Your task to perform on an android device: turn off location Image 0: 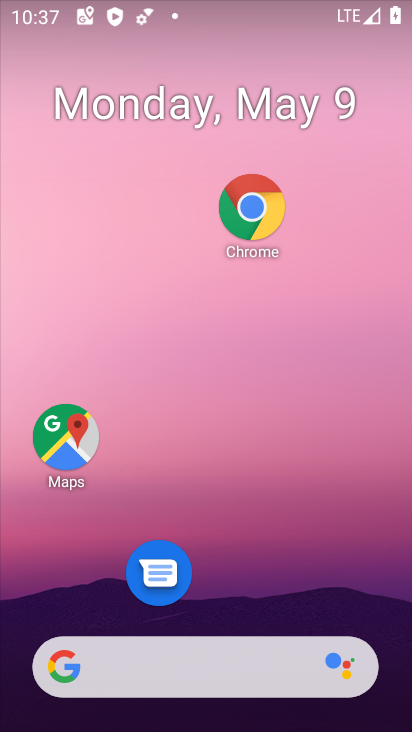
Step 0: drag from (251, 649) to (271, 42)
Your task to perform on an android device: turn off location Image 1: 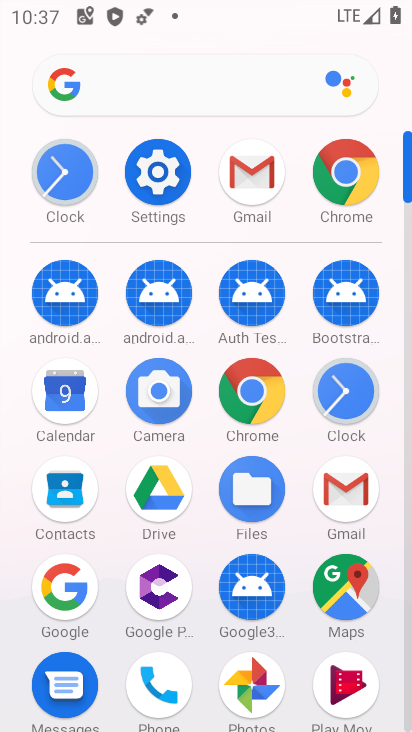
Step 1: click (176, 205)
Your task to perform on an android device: turn off location Image 2: 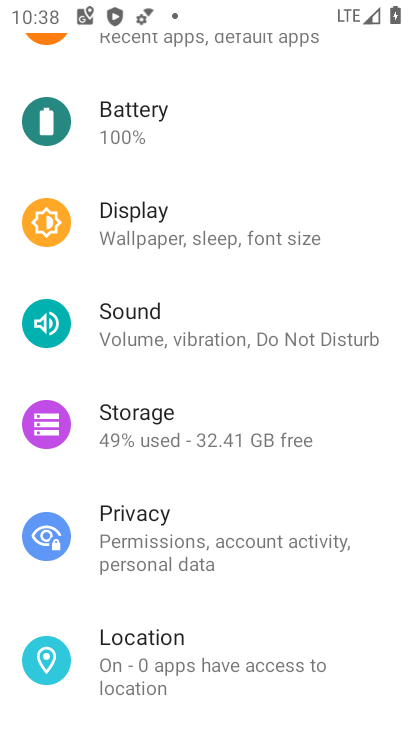
Step 2: click (243, 656)
Your task to perform on an android device: turn off location Image 3: 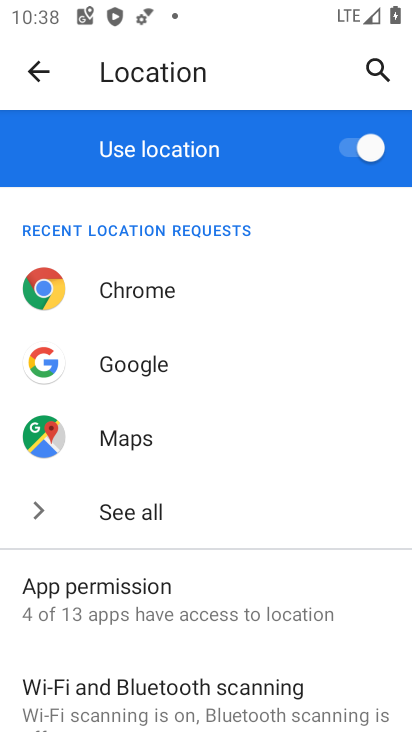
Step 3: drag from (248, 655) to (251, 278)
Your task to perform on an android device: turn off location Image 4: 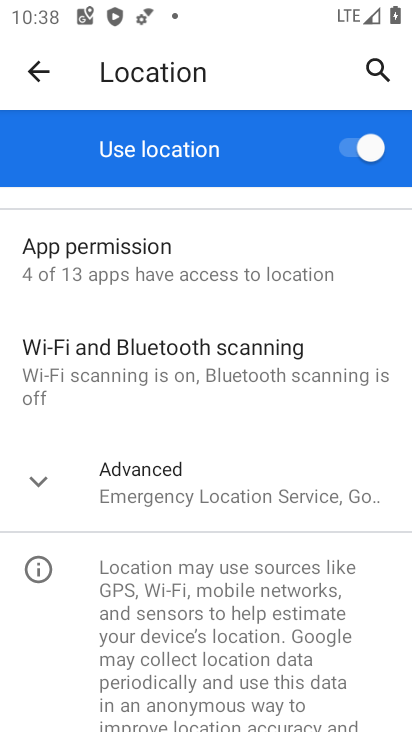
Step 4: click (347, 144)
Your task to perform on an android device: turn off location Image 5: 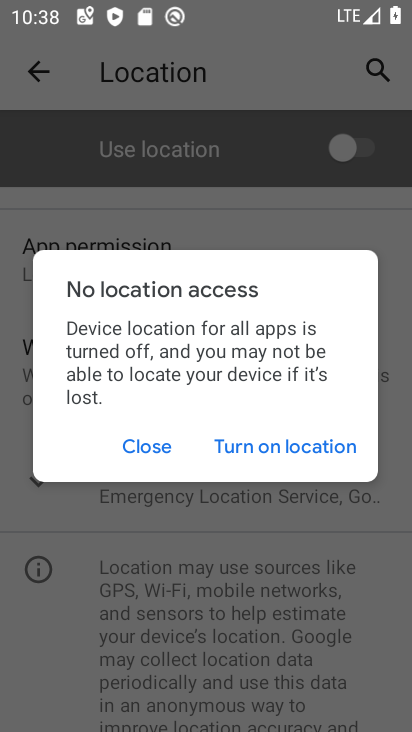
Step 5: task complete